Your task to perform on an android device: turn on sleep mode Image 0: 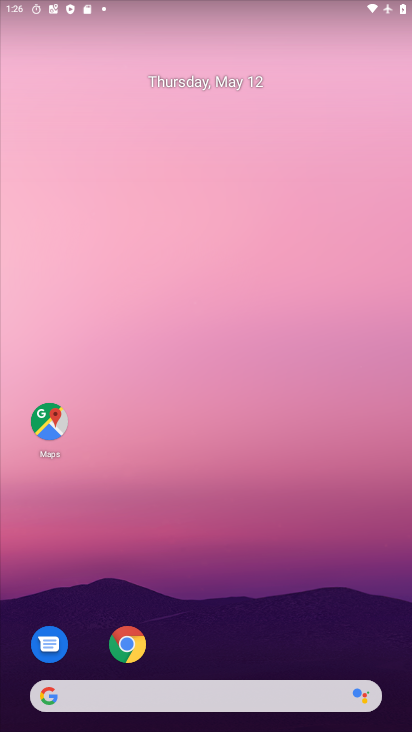
Step 0: drag from (237, 572) to (201, 58)
Your task to perform on an android device: turn on sleep mode Image 1: 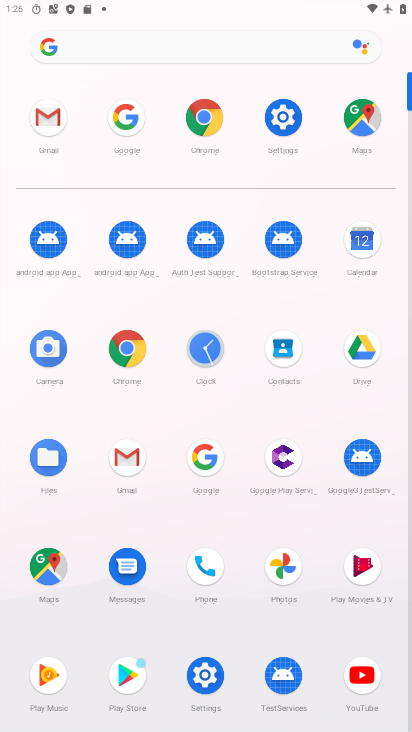
Step 1: click (202, 668)
Your task to perform on an android device: turn on sleep mode Image 2: 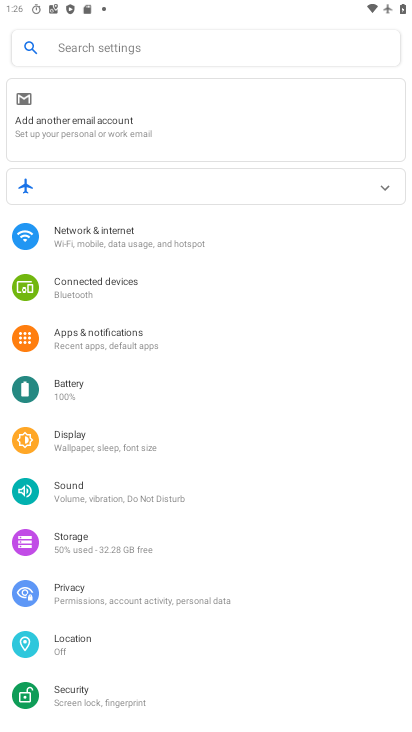
Step 2: click (112, 442)
Your task to perform on an android device: turn on sleep mode Image 3: 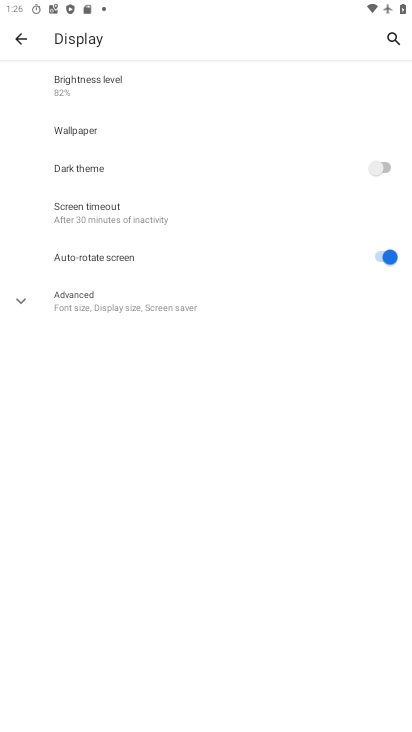
Step 3: task complete